Your task to perform on an android device: Set the phone to "Do not disturb". Image 0: 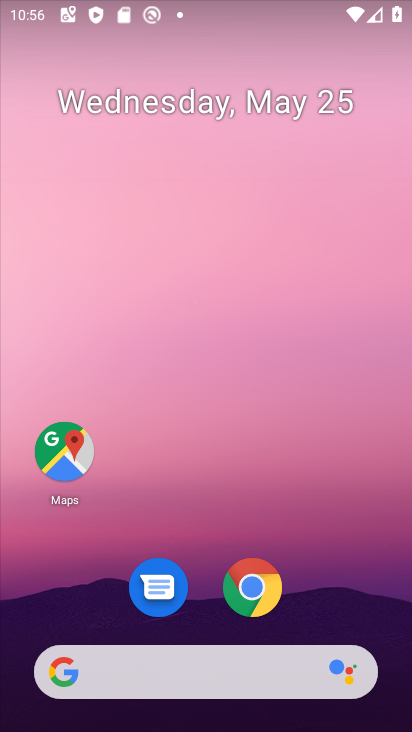
Step 0: drag from (327, 564) to (238, 4)
Your task to perform on an android device: Set the phone to "Do not disturb". Image 1: 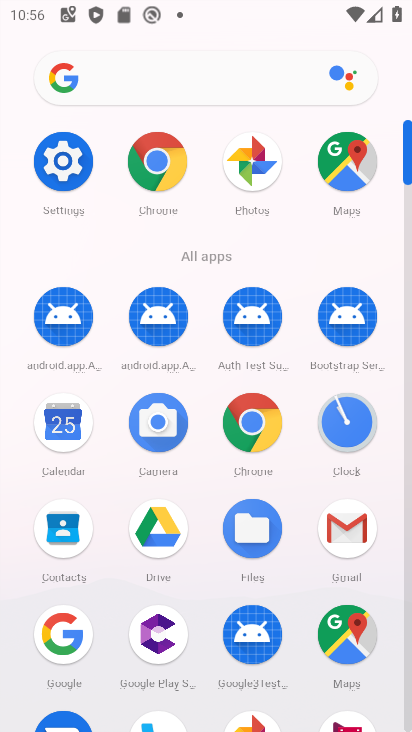
Step 1: drag from (0, 459) to (3, 211)
Your task to perform on an android device: Set the phone to "Do not disturb". Image 2: 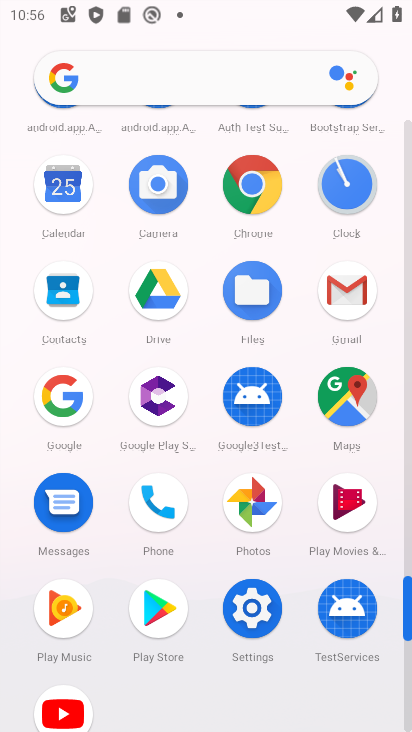
Step 2: click (250, 606)
Your task to perform on an android device: Set the phone to "Do not disturb". Image 3: 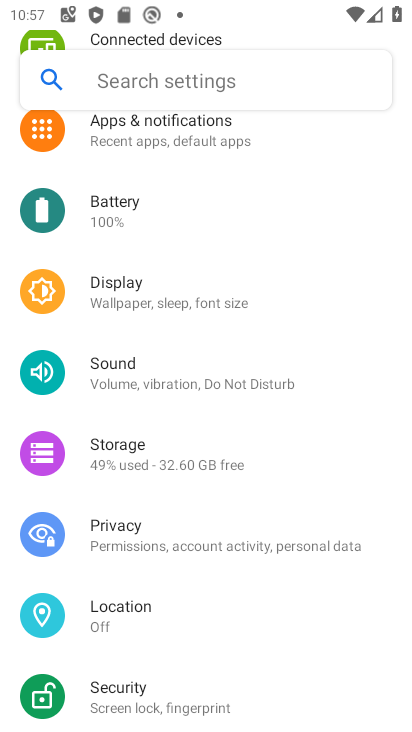
Step 3: click (198, 370)
Your task to perform on an android device: Set the phone to "Do not disturb". Image 4: 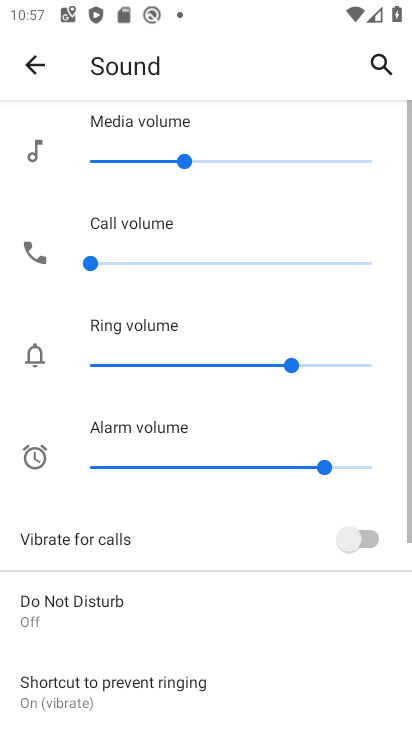
Step 4: drag from (193, 594) to (220, 103)
Your task to perform on an android device: Set the phone to "Do not disturb". Image 5: 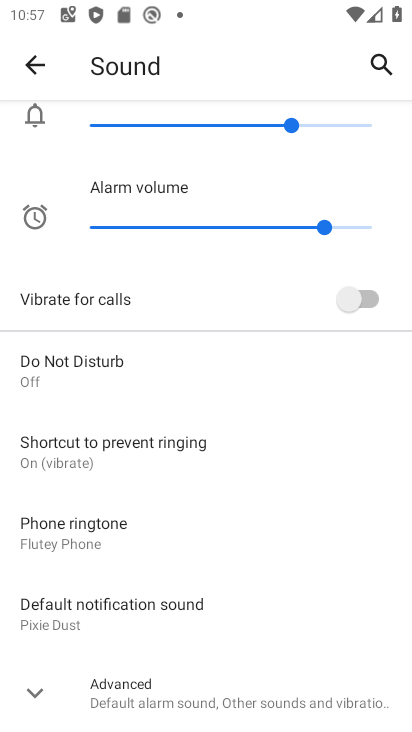
Step 5: click (39, 672)
Your task to perform on an android device: Set the phone to "Do not disturb". Image 6: 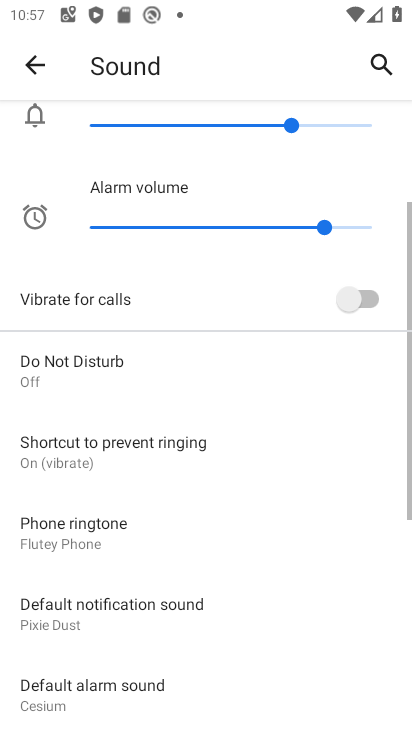
Step 6: click (87, 363)
Your task to perform on an android device: Set the phone to "Do not disturb". Image 7: 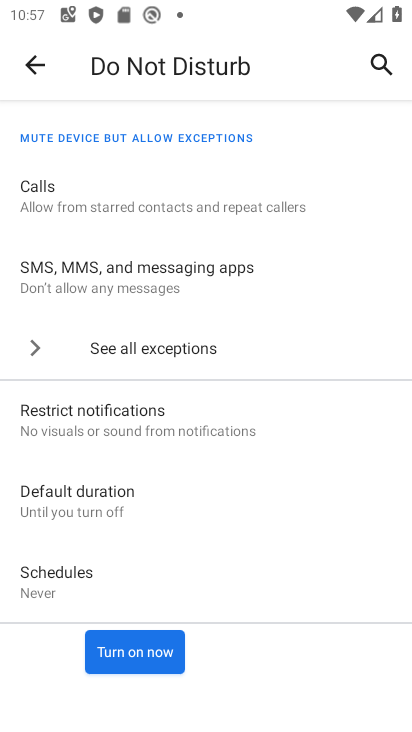
Step 7: click (134, 644)
Your task to perform on an android device: Set the phone to "Do not disturb". Image 8: 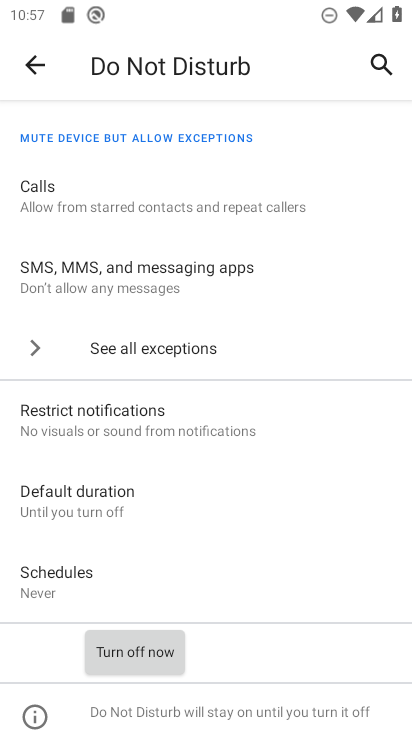
Step 8: task complete